Your task to perform on an android device: Do I have any events today? Image 0: 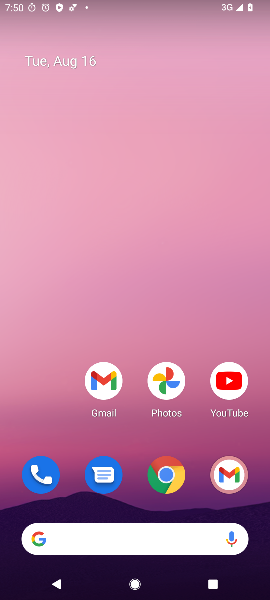
Step 0: drag from (210, 512) to (84, 28)
Your task to perform on an android device: Do I have any events today? Image 1: 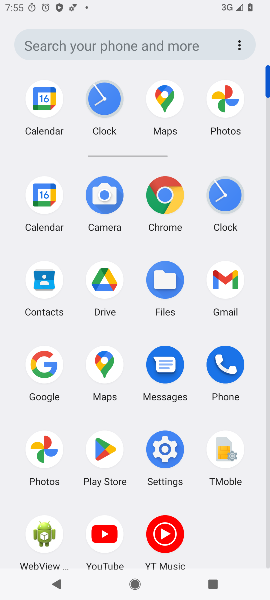
Step 1: click (52, 199)
Your task to perform on an android device: Do I have any events today? Image 2: 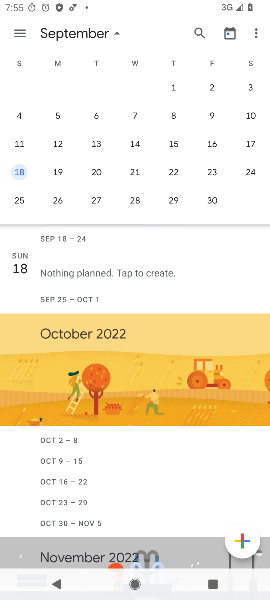
Step 2: task complete